Your task to perform on an android device: Open network settings Image 0: 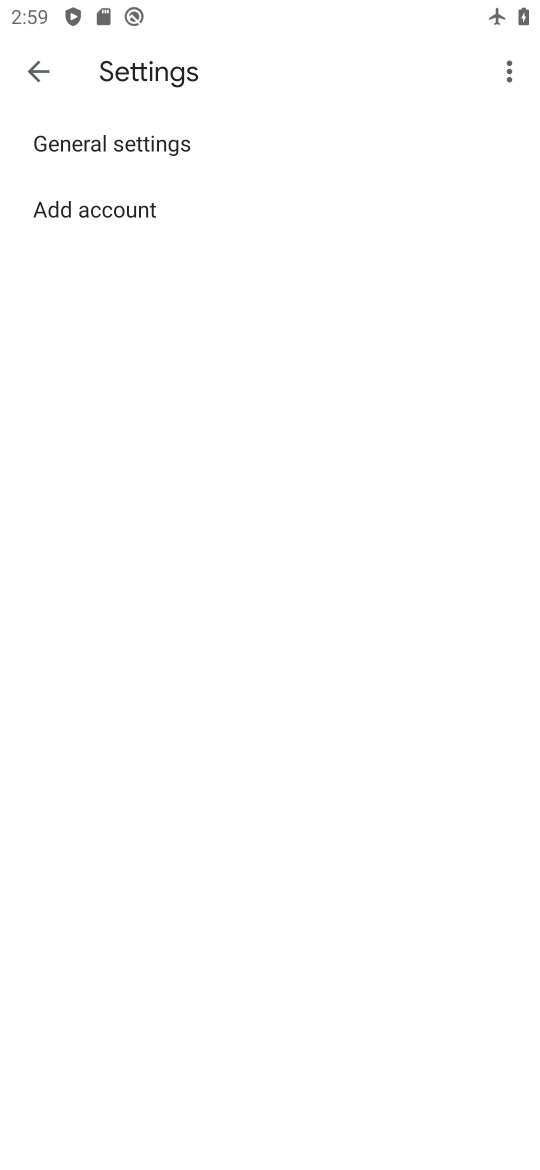
Step 0: task complete